Your task to perform on an android device: check data usage Image 0: 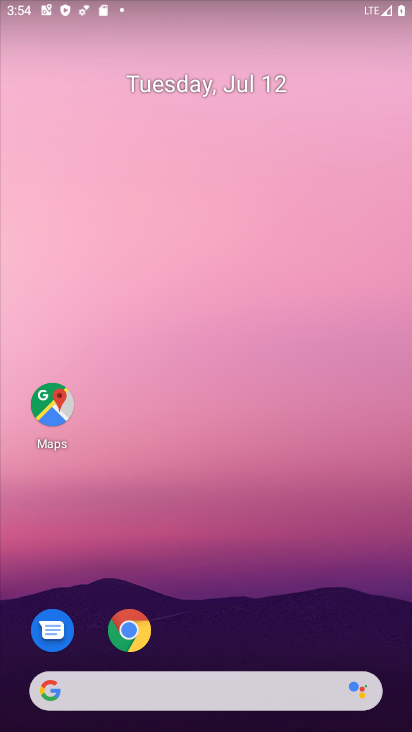
Step 0: press home button
Your task to perform on an android device: check data usage Image 1: 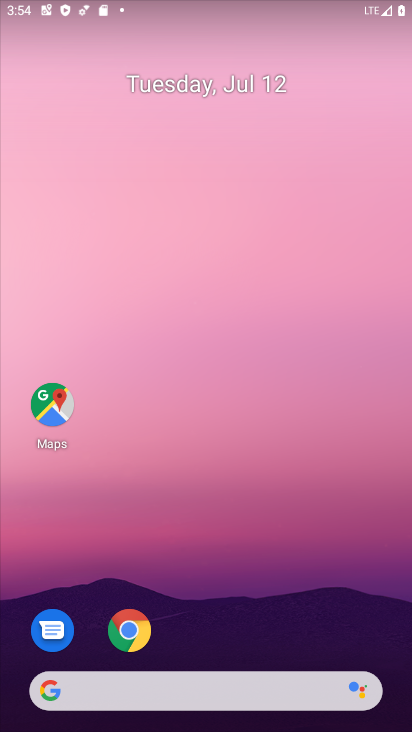
Step 1: drag from (309, 681) to (336, 43)
Your task to perform on an android device: check data usage Image 2: 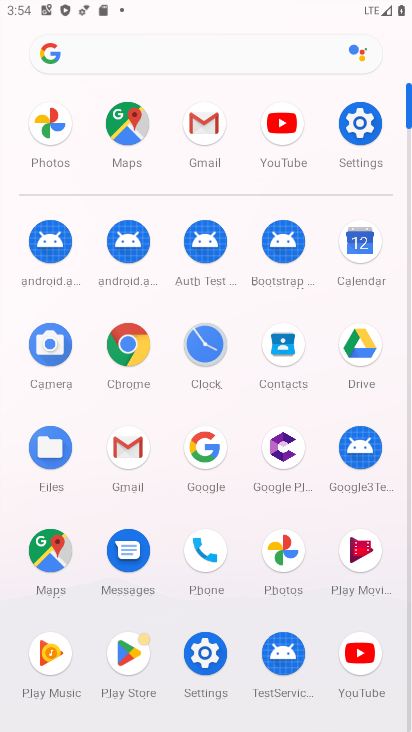
Step 2: click (359, 120)
Your task to perform on an android device: check data usage Image 3: 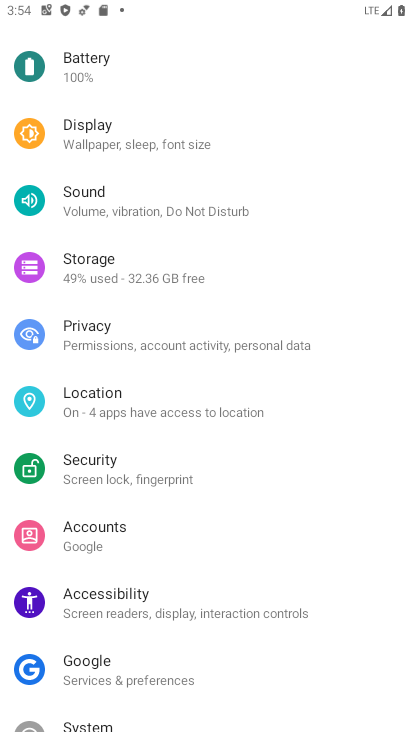
Step 3: drag from (187, 217) to (133, 598)
Your task to perform on an android device: check data usage Image 4: 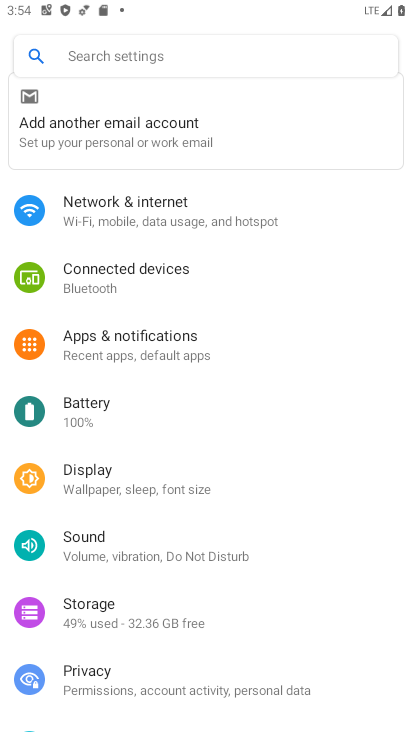
Step 4: click (186, 224)
Your task to perform on an android device: check data usage Image 5: 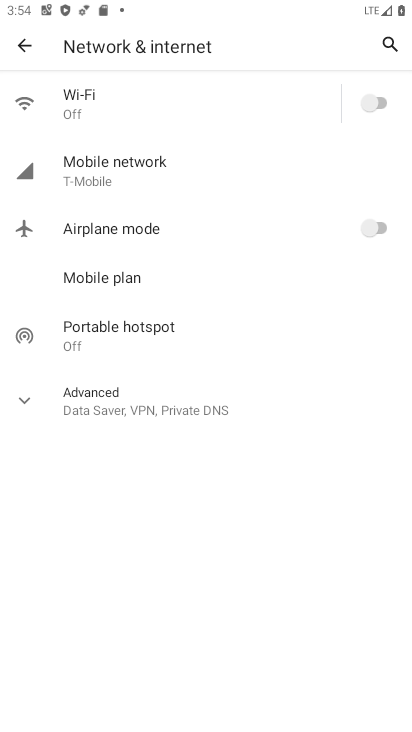
Step 5: click (130, 280)
Your task to perform on an android device: check data usage Image 6: 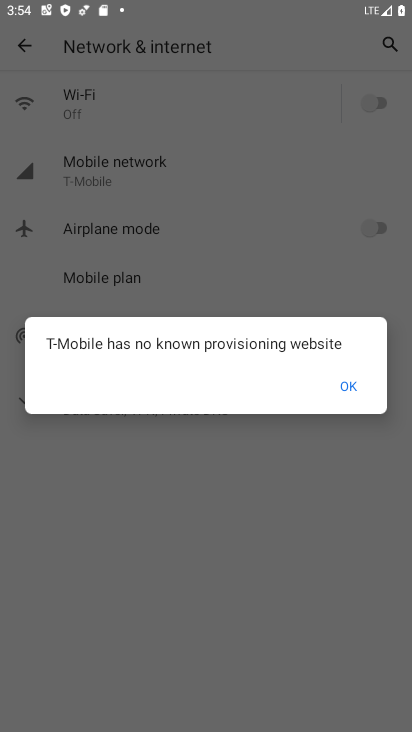
Step 6: click (353, 386)
Your task to perform on an android device: check data usage Image 7: 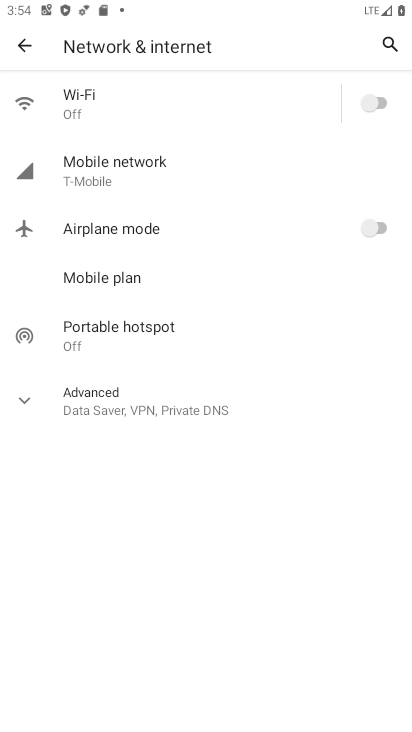
Step 7: click (178, 172)
Your task to perform on an android device: check data usage Image 8: 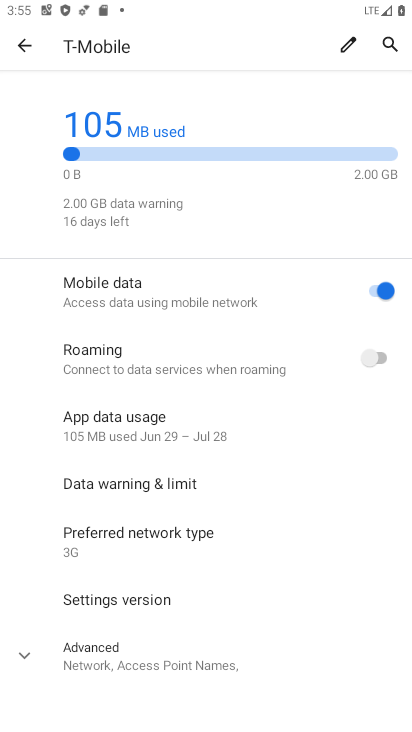
Step 8: task complete